Your task to perform on an android device: Search for shimano brake pads on Walmart Image 0: 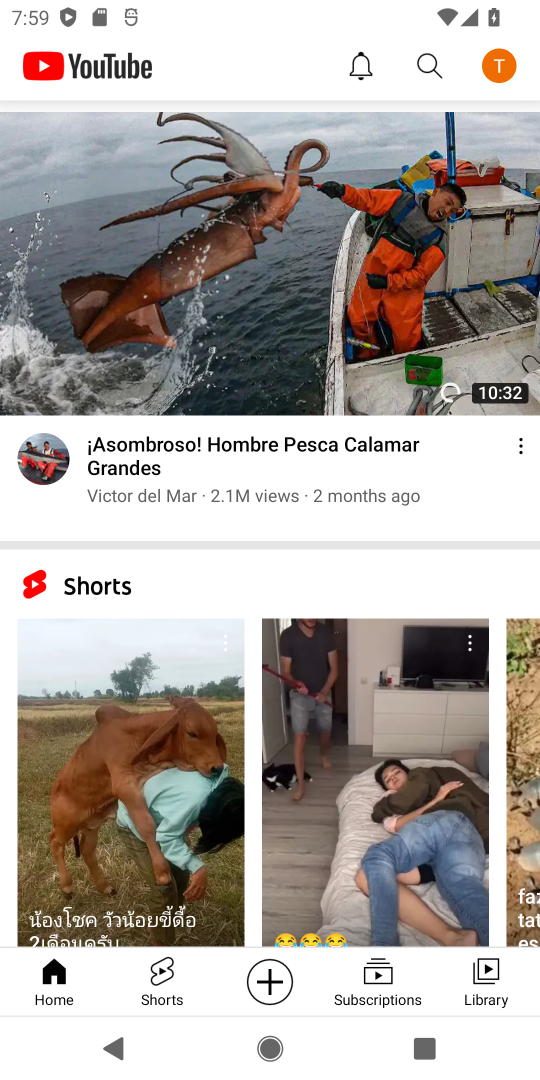
Step 0: press home button
Your task to perform on an android device: Search for shimano brake pads on Walmart Image 1: 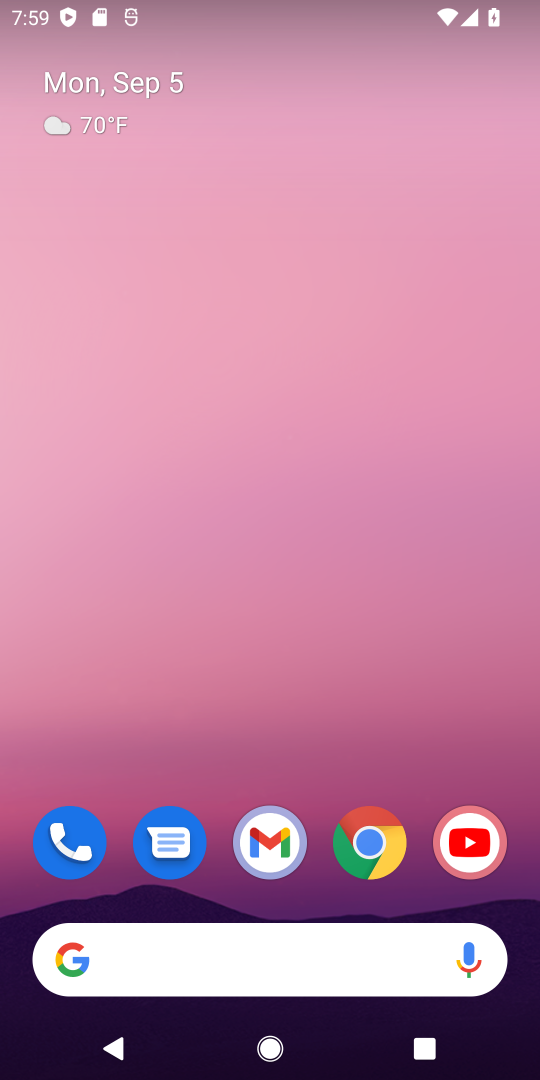
Step 1: click (362, 847)
Your task to perform on an android device: Search for shimano brake pads on Walmart Image 2: 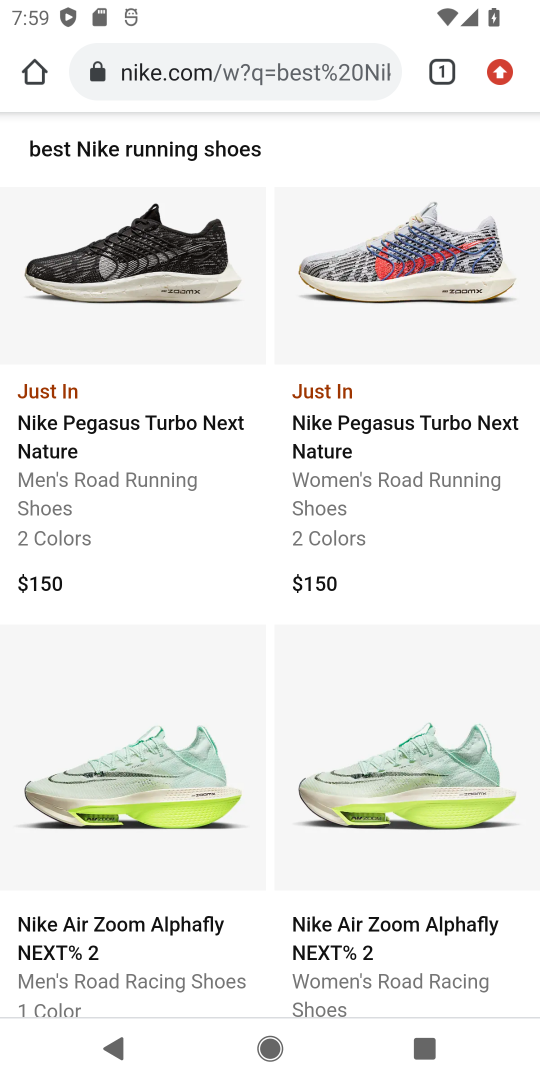
Step 2: click (349, 82)
Your task to perform on an android device: Search for shimano brake pads on Walmart Image 3: 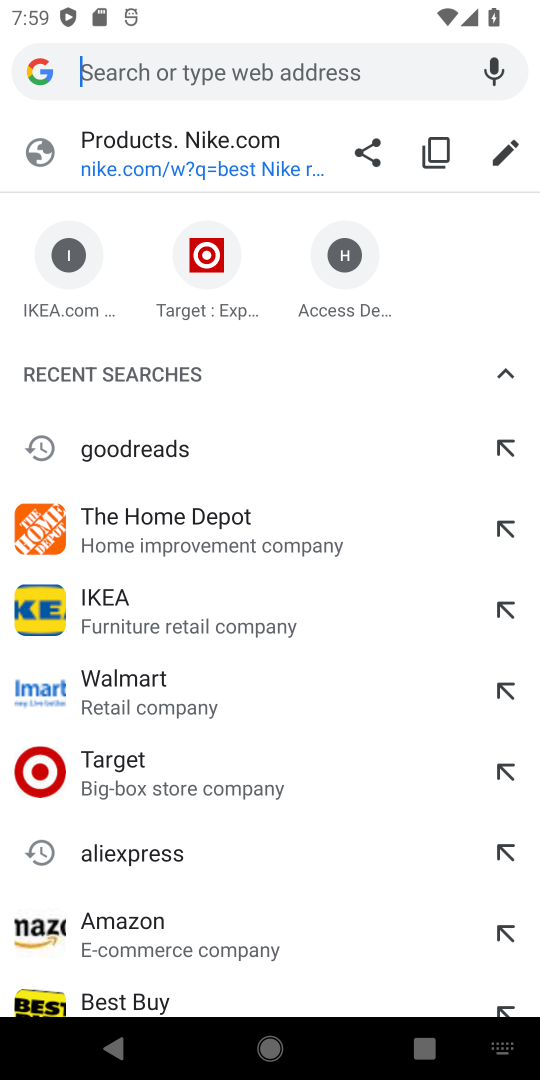
Step 3: type "Walamrt"
Your task to perform on an android device: Search for shimano brake pads on Walmart Image 4: 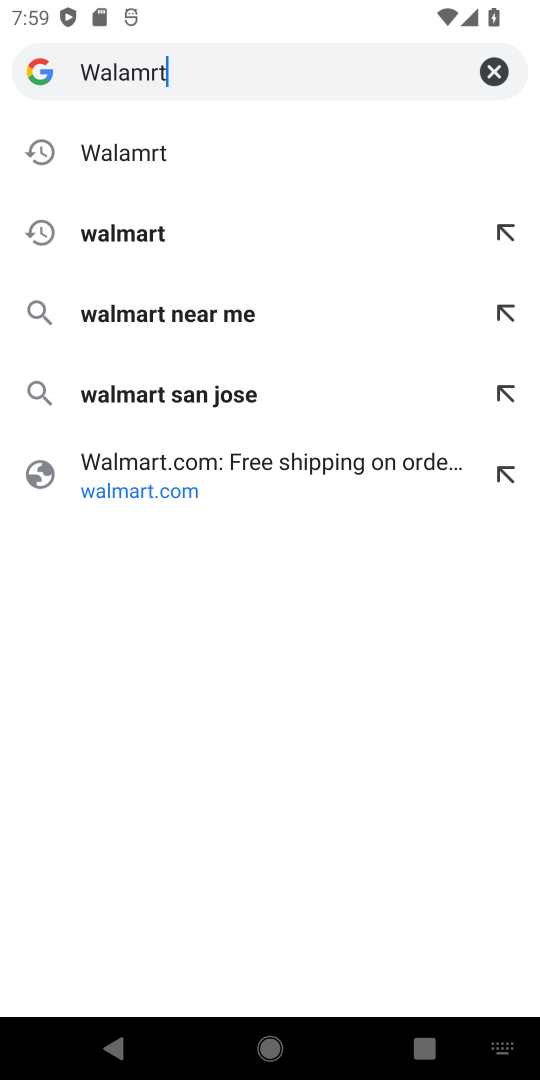
Step 4: click (150, 156)
Your task to perform on an android device: Search for shimano brake pads on Walmart Image 5: 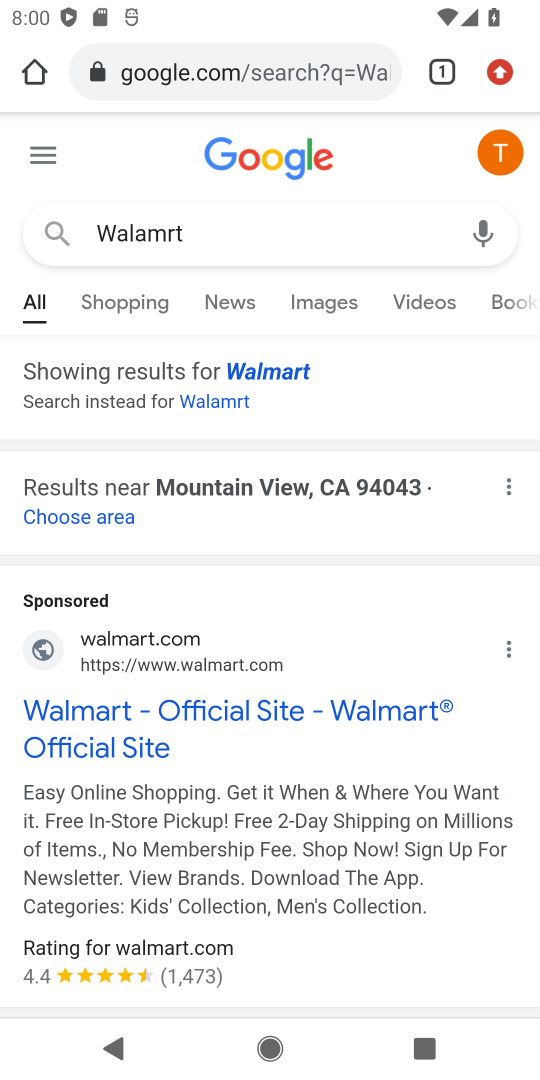
Step 5: drag from (306, 754) to (383, 529)
Your task to perform on an android device: Search for shimano brake pads on Walmart Image 6: 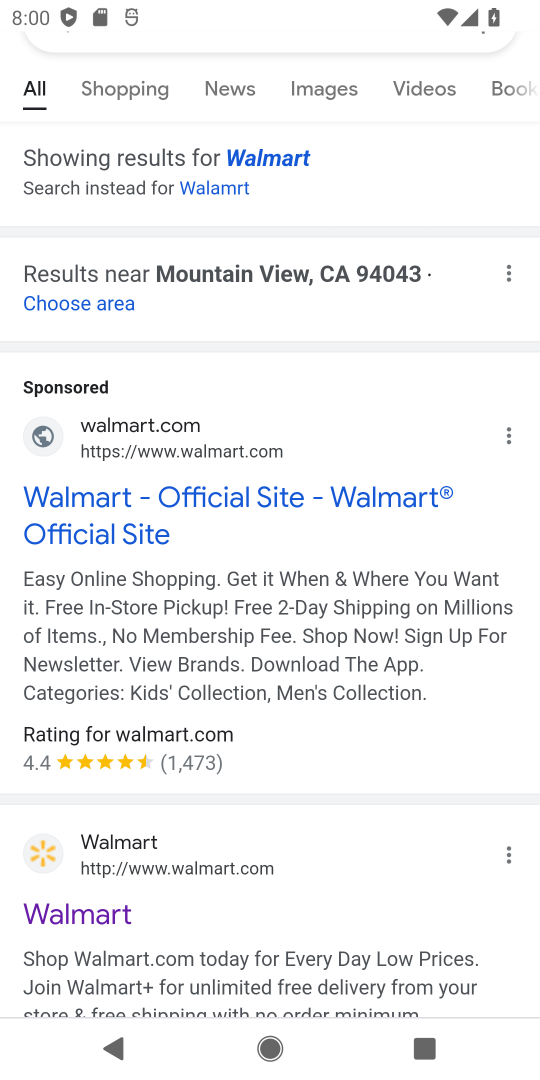
Step 6: drag from (286, 912) to (387, 739)
Your task to perform on an android device: Search for shimano brake pads on Walmart Image 7: 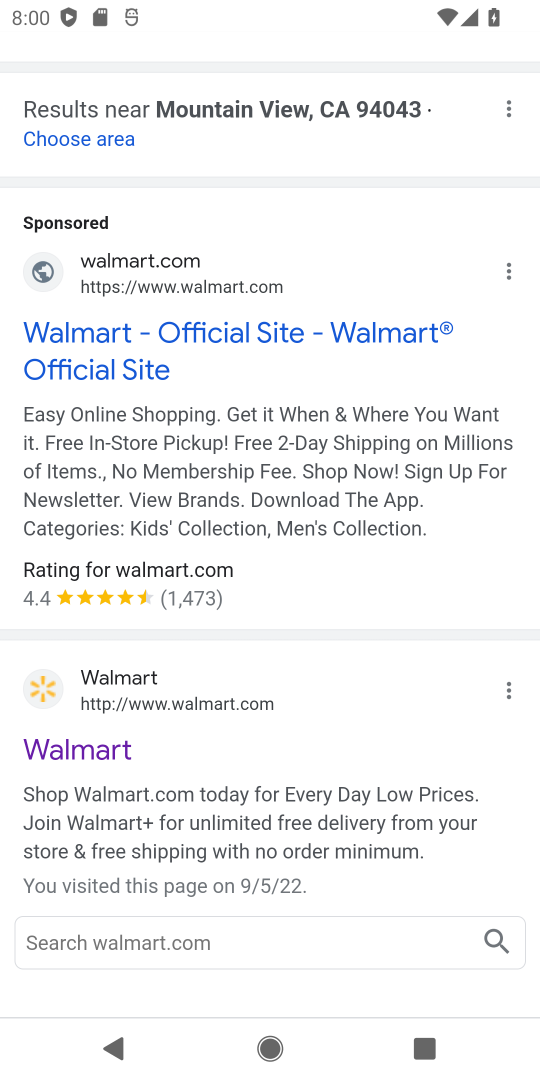
Step 7: click (95, 766)
Your task to perform on an android device: Search for shimano brake pads on Walmart Image 8: 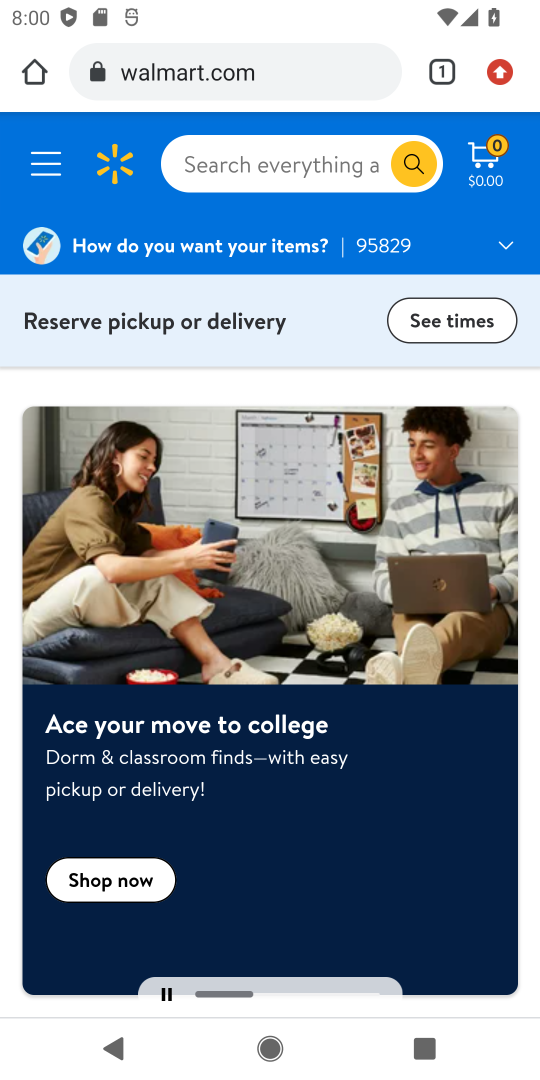
Step 8: click (296, 169)
Your task to perform on an android device: Search for shimano brake pads on Walmart Image 9: 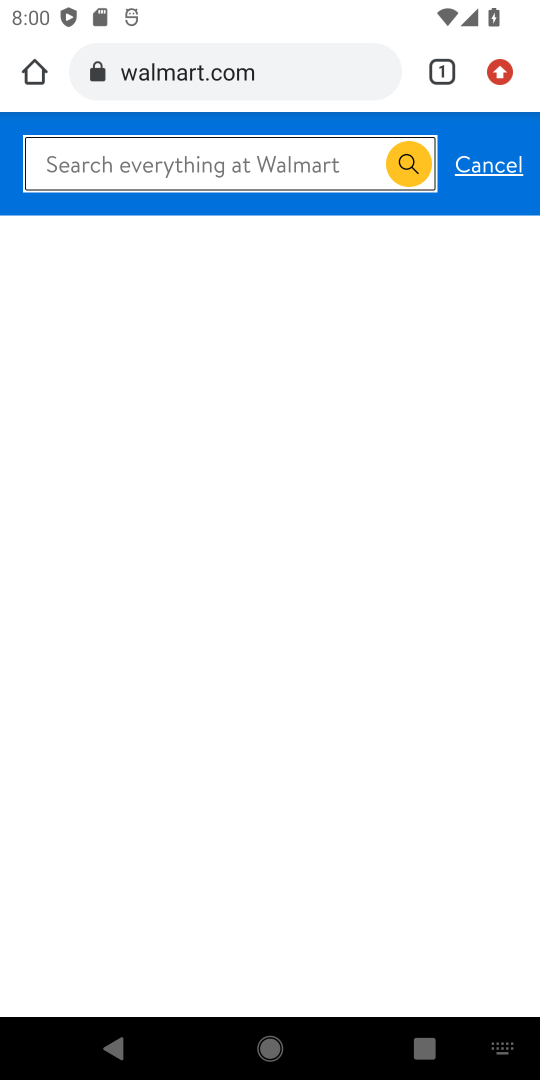
Step 9: type "shimano brake pads"
Your task to perform on an android device: Search for shimano brake pads on Walmart Image 10: 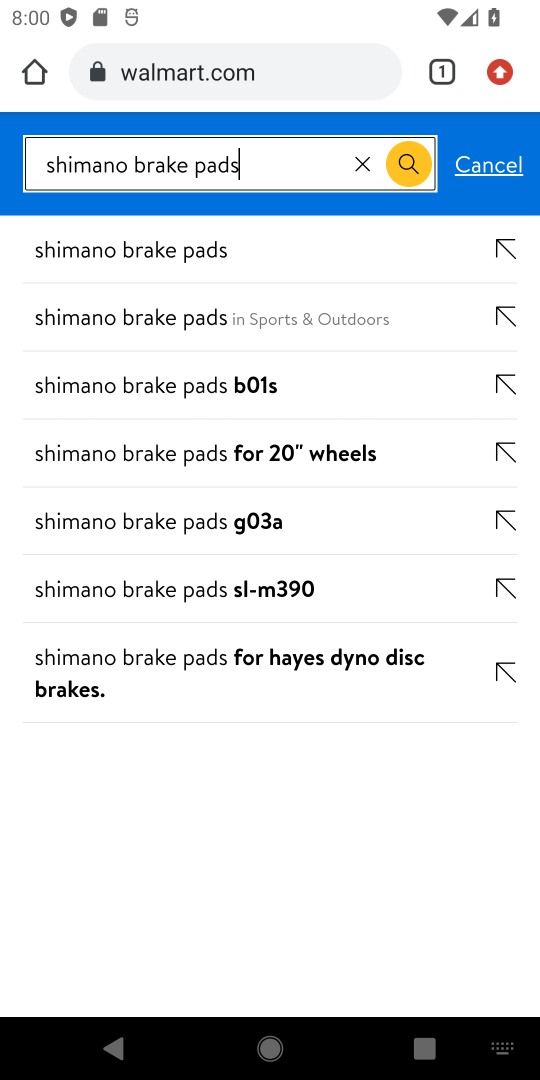
Step 10: click (406, 169)
Your task to perform on an android device: Search for shimano brake pads on Walmart Image 11: 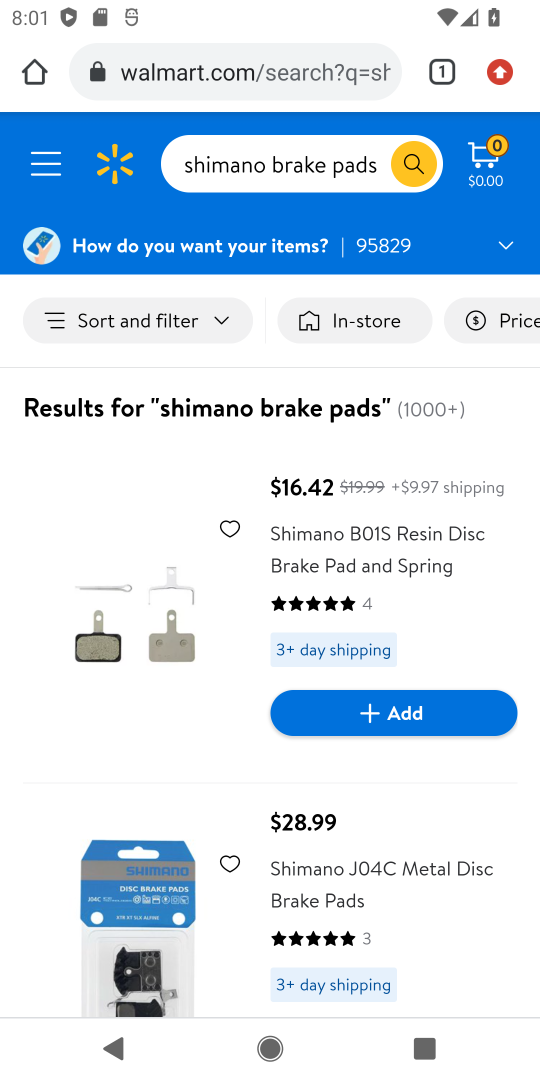
Step 11: task complete